Your task to perform on an android device: stop showing notifications on the lock screen Image 0: 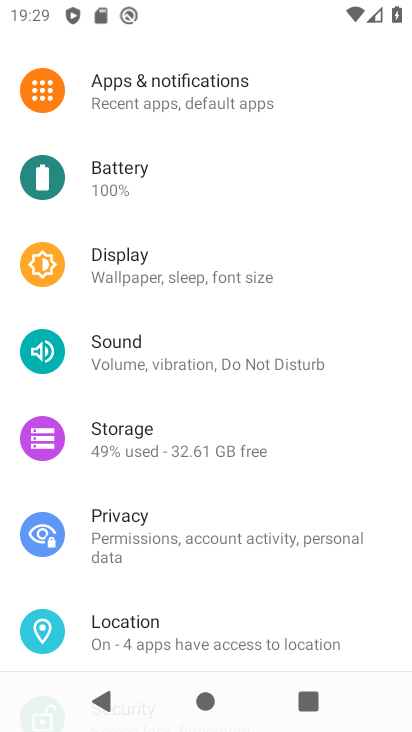
Step 0: press home button
Your task to perform on an android device: stop showing notifications on the lock screen Image 1: 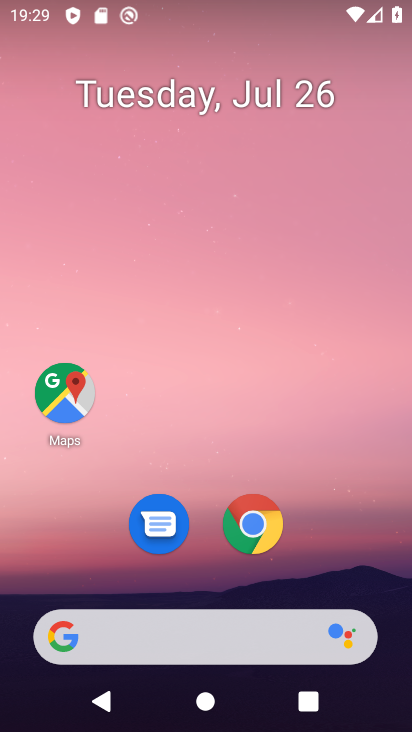
Step 1: drag from (180, 632) to (344, 97)
Your task to perform on an android device: stop showing notifications on the lock screen Image 2: 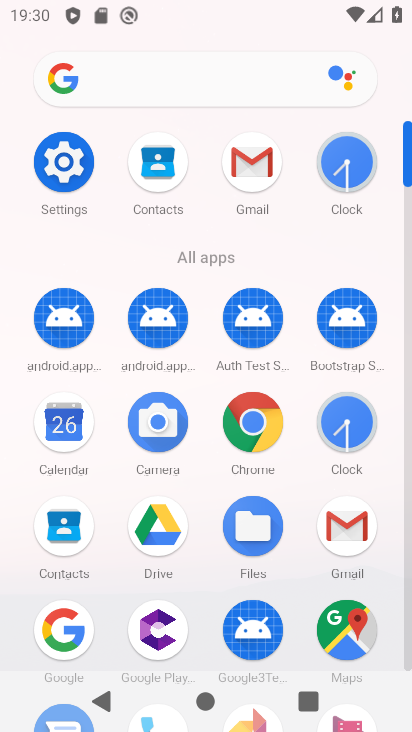
Step 2: click (70, 173)
Your task to perform on an android device: stop showing notifications on the lock screen Image 3: 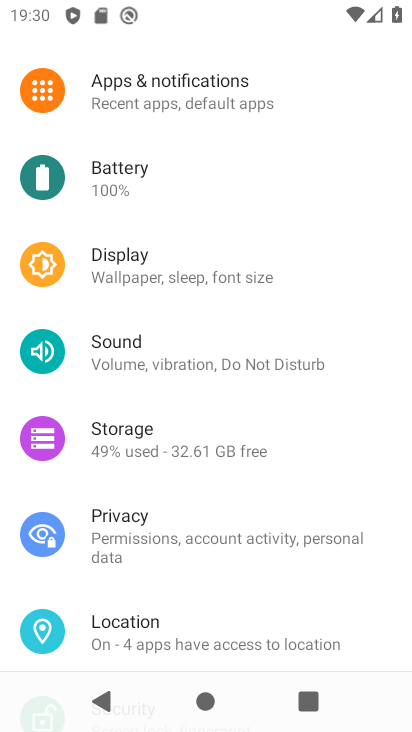
Step 3: click (229, 92)
Your task to perform on an android device: stop showing notifications on the lock screen Image 4: 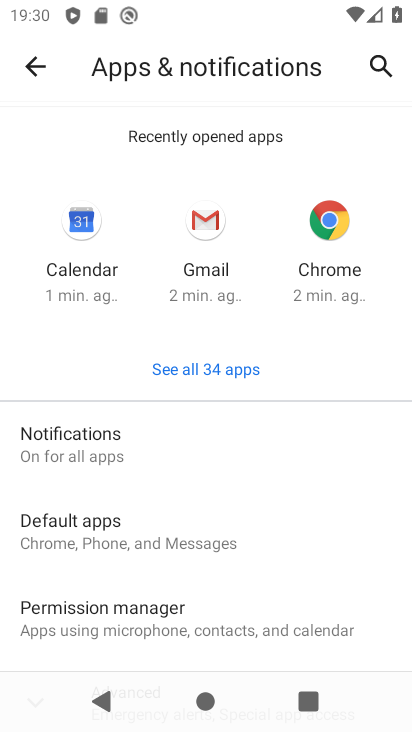
Step 4: click (120, 446)
Your task to perform on an android device: stop showing notifications on the lock screen Image 5: 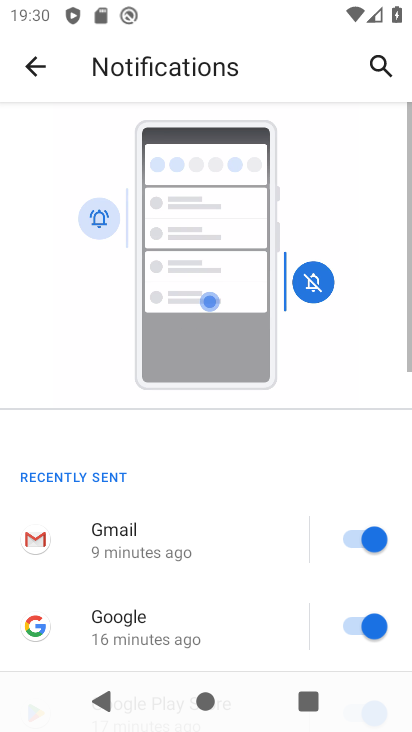
Step 5: drag from (256, 569) to (337, 114)
Your task to perform on an android device: stop showing notifications on the lock screen Image 6: 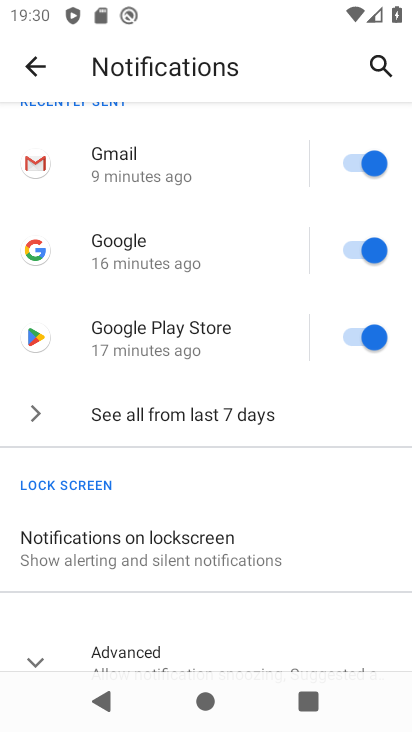
Step 6: click (203, 550)
Your task to perform on an android device: stop showing notifications on the lock screen Image 7: 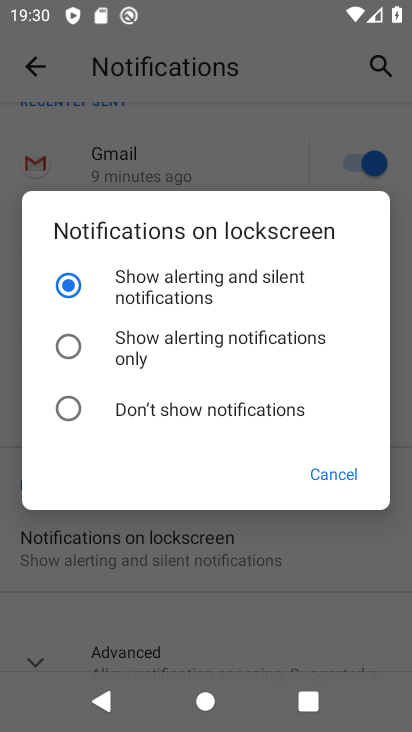
Step 7: click (69, 407)
Your task to perform on an android device: stop showing notifications on the lock screen Image 8: 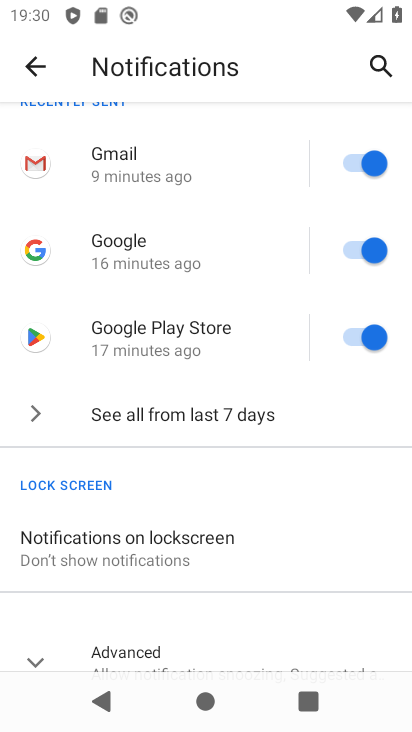
Step 8: task complete